Your task to perform on an android device: toggle improve location accuracy Image 0: 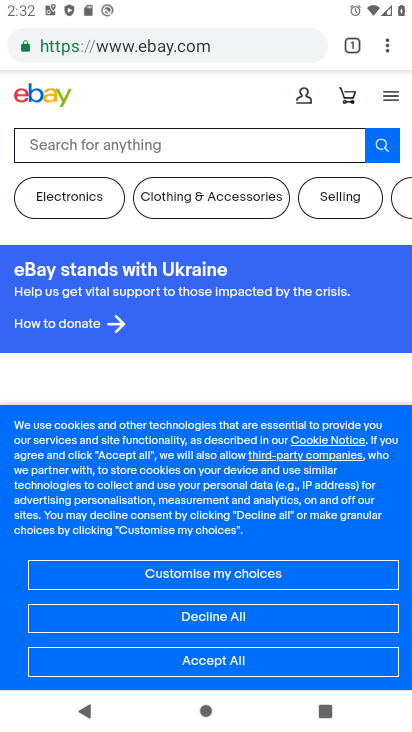
Step 0: press home button
Your task to perform on an android device: toggle improve location accuracy Image 1: 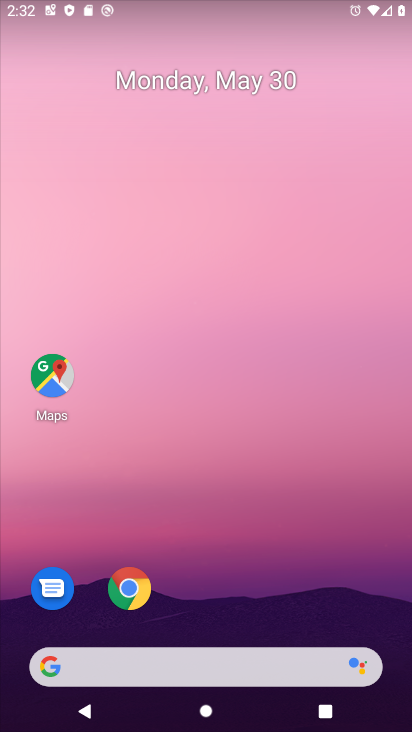
Step 1: drag from (280, 594) to (238, 120)
Your task to perform on an android device: toggle improve location accuracy Image 2: 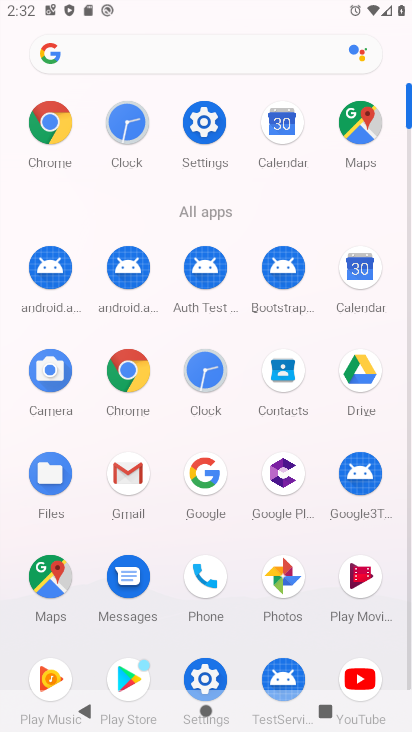
Step 2: click (212, 681)
Your task to perform on an android device: toggle improve location accuracy Image 3: 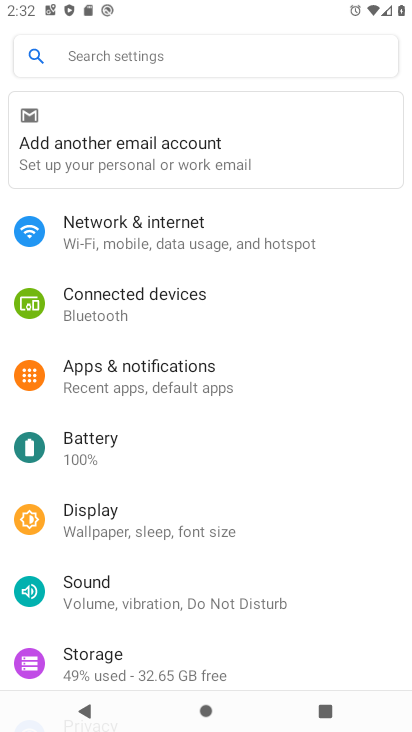
Step 3: drag from (209, 579) to (204, 375)
Your task to perform on an android device: toggle improve location accuracy Image 4: 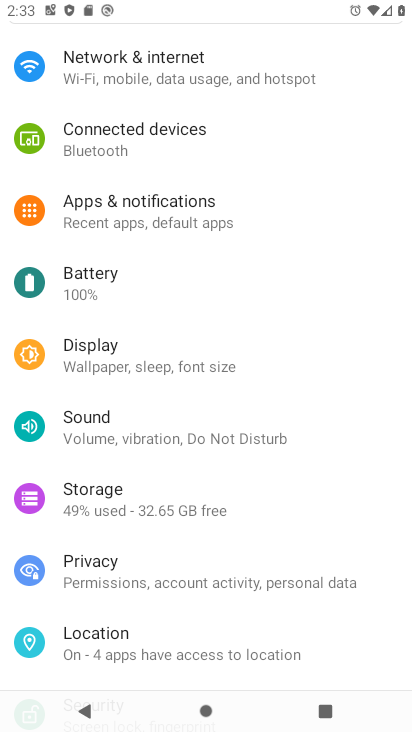
Step 4: click (161, 630)
Your task to perform on an android device: toggle improve location accuracy Image 5: 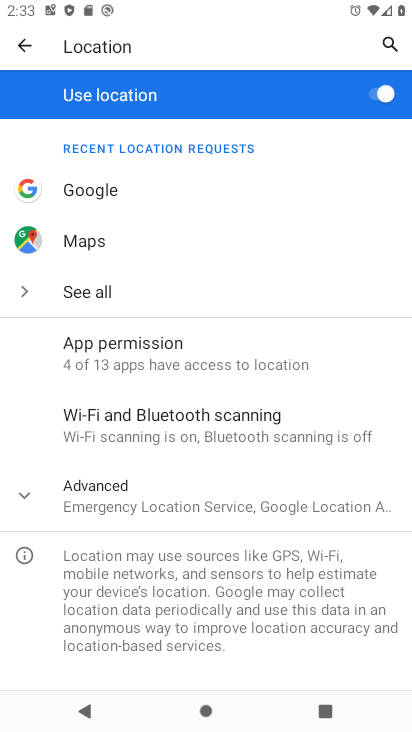
Step 5: click (267, 502)
Your task to perform on an android device: toggle improve location accuracy Image 6: 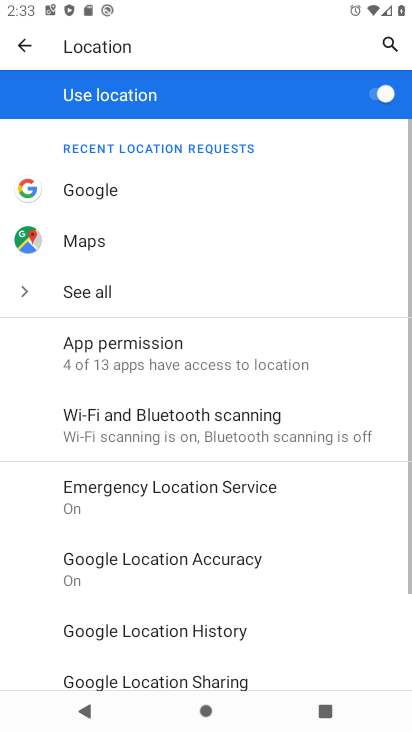
Step 6: click (246, 556)
Your task to perform on an android device: toggle improve location accuracy Image 7: 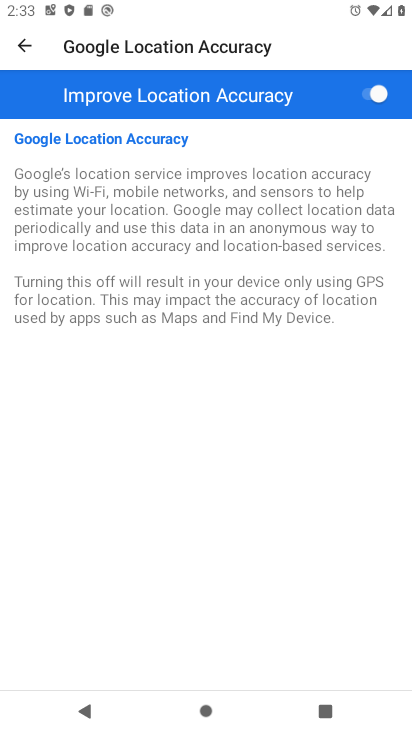
Step 7: click (388, 92)
Your task to perform on an android device: toggle improve location accuracy Image 8: 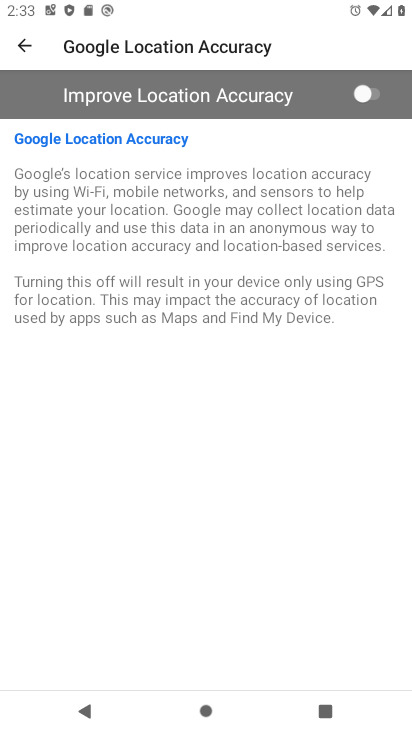
Step 8: task complete